Your task to perform on an android device: Open my contact list Image 0: 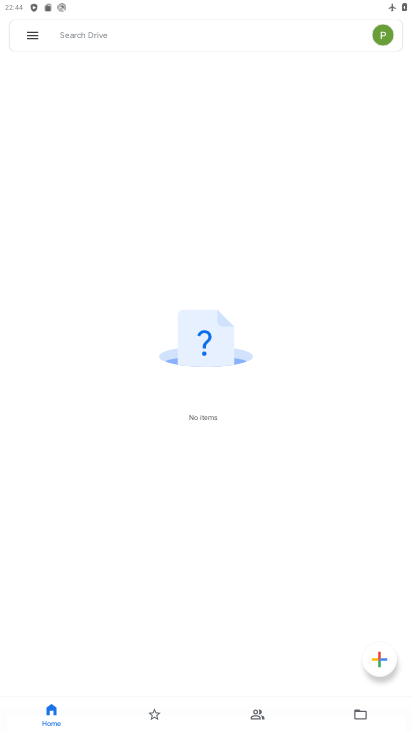
Step 0: press home button
Your task to perform on an android device: Open my contact list Image 1: 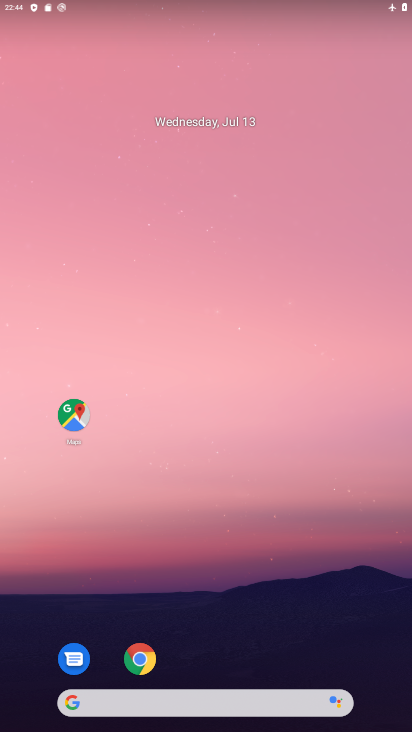
Step 1: drag from (369, 635) to (291, 140)
Your task to perform on an android device: Open my contact list Image 2: 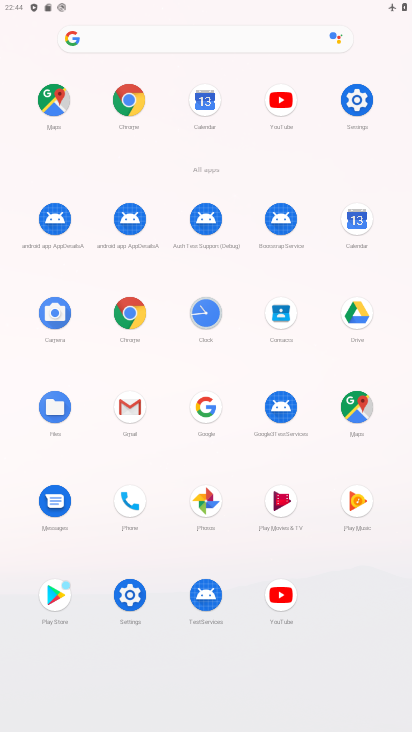
Step 2: click (282, 318)
Your task to perform on an android device: Open my contact list Image 3: 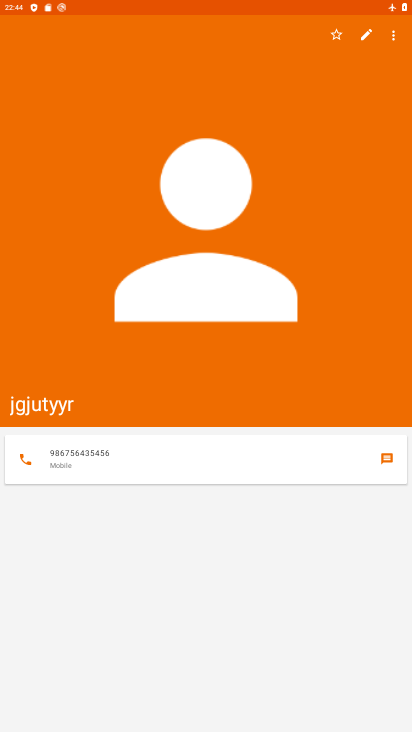
Step 3: task complete